Your task to perform on an android device: remove spam from my inbox in the gmail app Image 0: 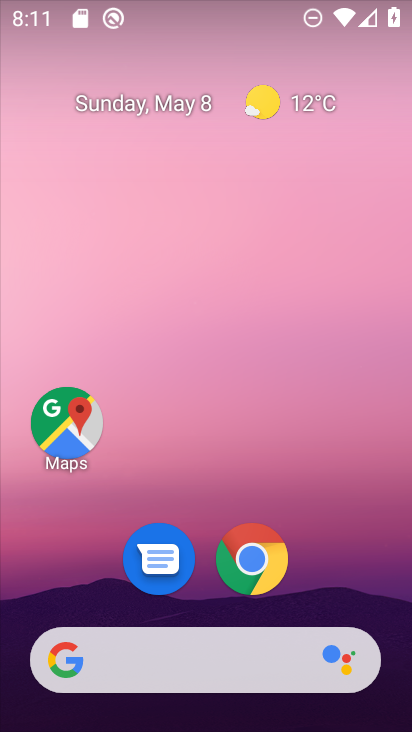
Step 0: drag from (341, 574) to (343, 28)
Your task to perform on an android device: remove spam from my inbox in the gmail app Image 1: 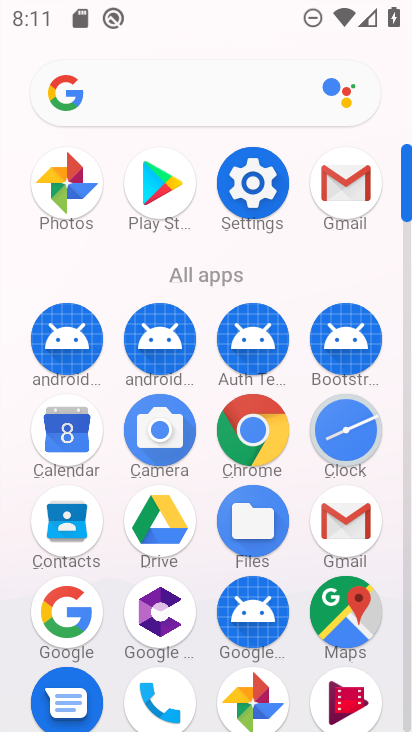
Step 1: click (340, 189)
Your task to perform on an android device: remove spam from my inbox in the gmail app Image 2: 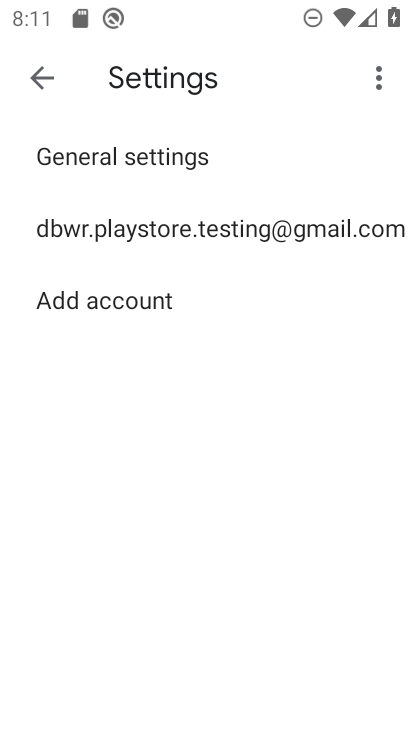
Step 2: click (30, 79)
Your task to perform on an android device: remove spam from my inbox in the gmail app Image 3: 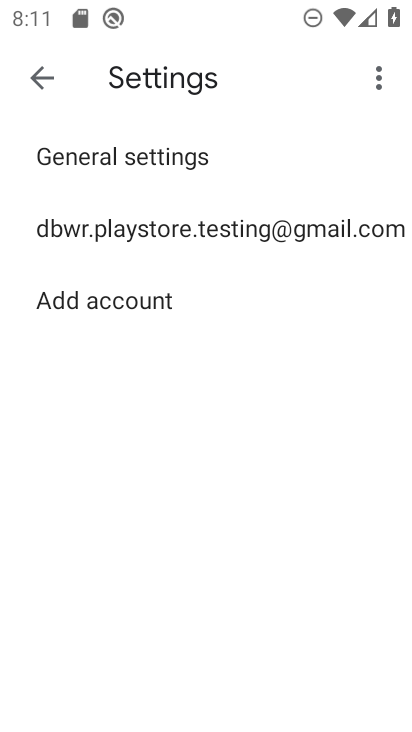
Step 3: click (38, 81)
Your task to perform on an android device: remove spam from my inbox in the gmail app Image 4: 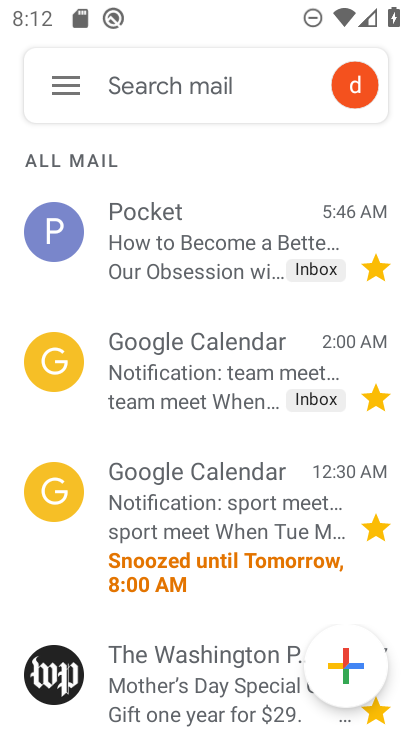
Step 4: click (51, 94)
Your task to perform on an android device: remove spam from my inbox in the gmail app Image 5: 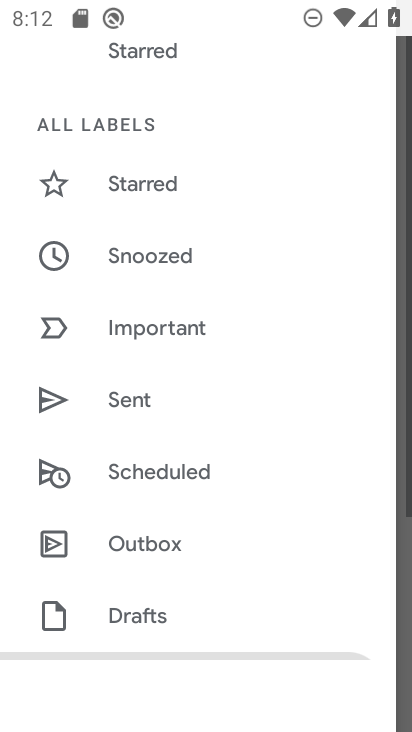
Step 5: drag from (266, 578) to (260, 145)
Your task to perform on an android device: remove spam from my inbox in the gmail app Image 6: 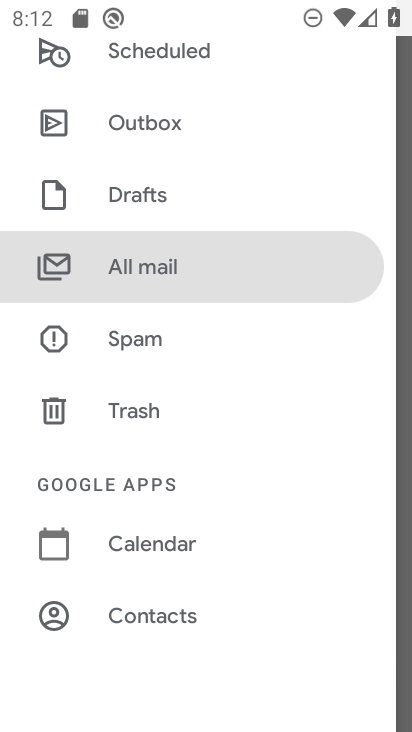
Step 6: click (131, 333)
Your task to perform on an android device: remove spam from my inbox in the gmail app Image 7: 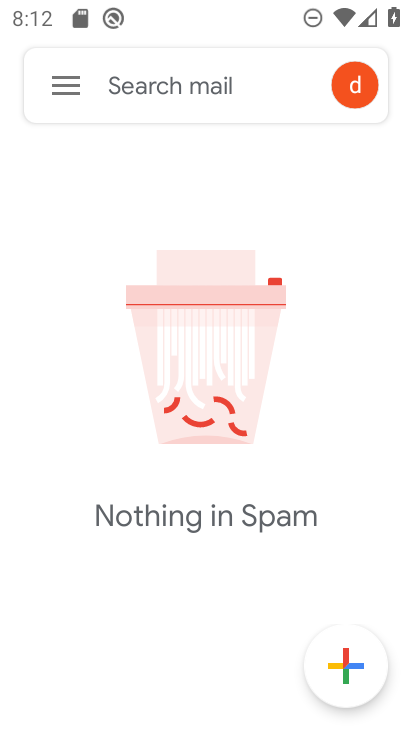
Step 7: task complete